Your task to perform on an android device: install app "Facebook" Image 0: 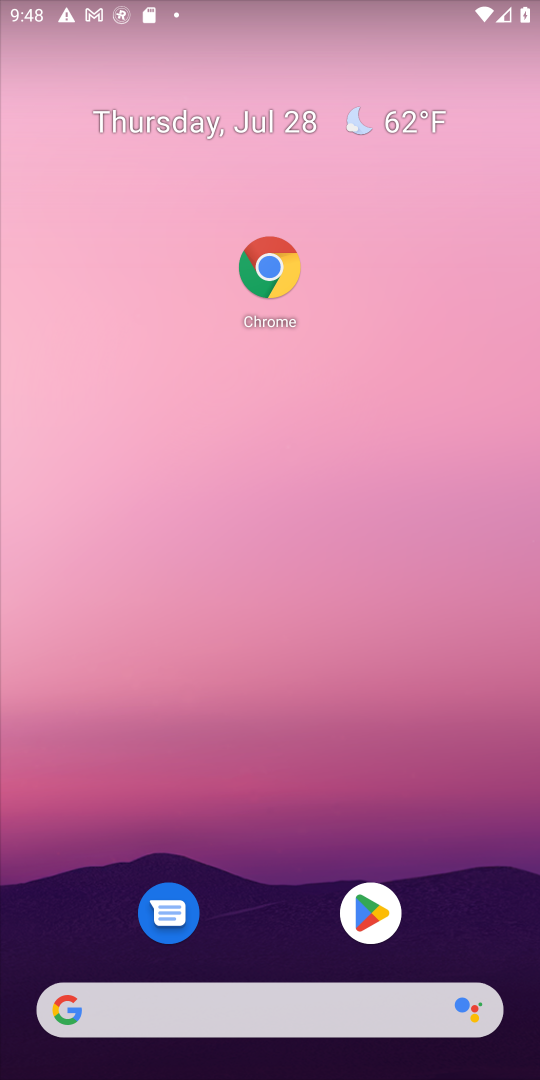
Step 0: click (376, 914)
Your task to perform on an android device: install app "Facebook" Image 1: 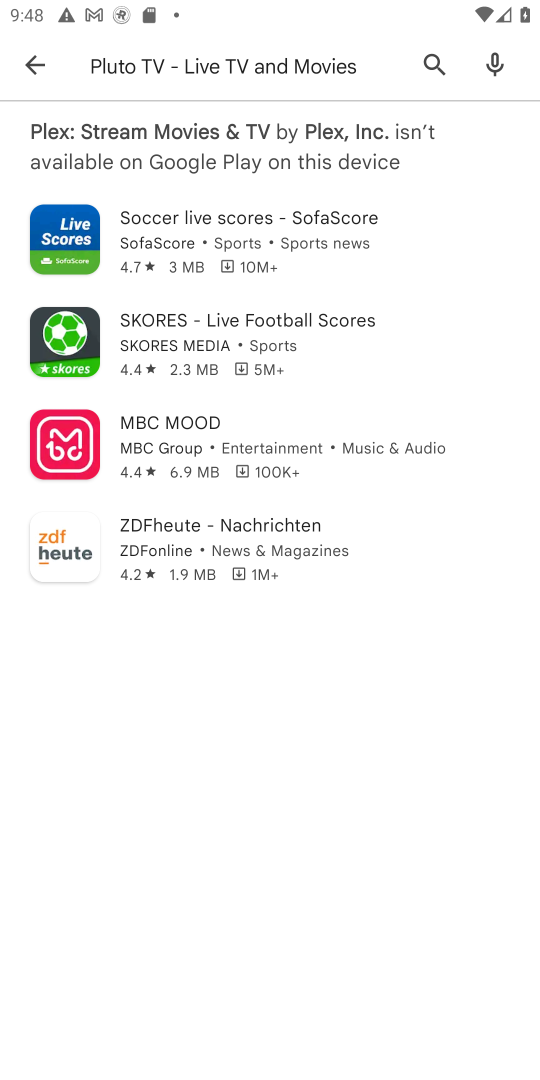
Step 1: click (429, 67)
Your task to perform on an android device: install app "Facebook" Image 2: 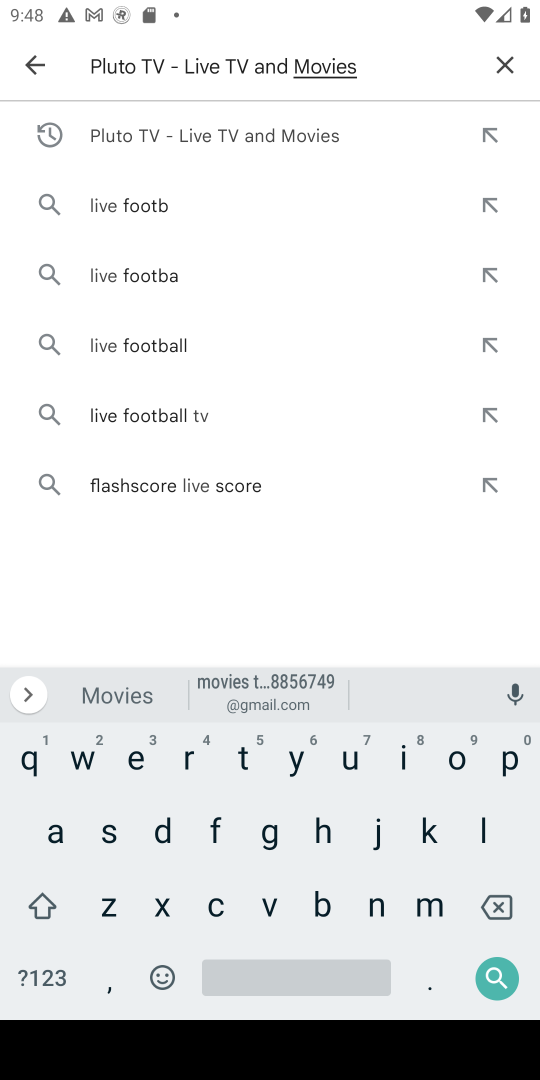
Step 2: click (511, 65)
Your task to perform on an android device: install app "Facebook" Image 3: 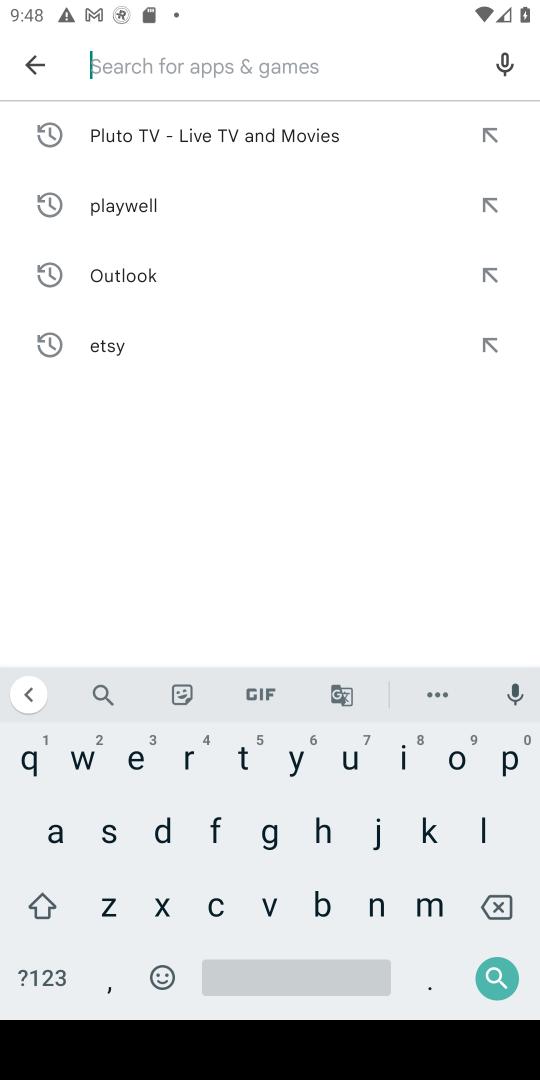
Step 3: click (204, 831)
Your task to perform on an android device: install app "Facebook" Image 4: 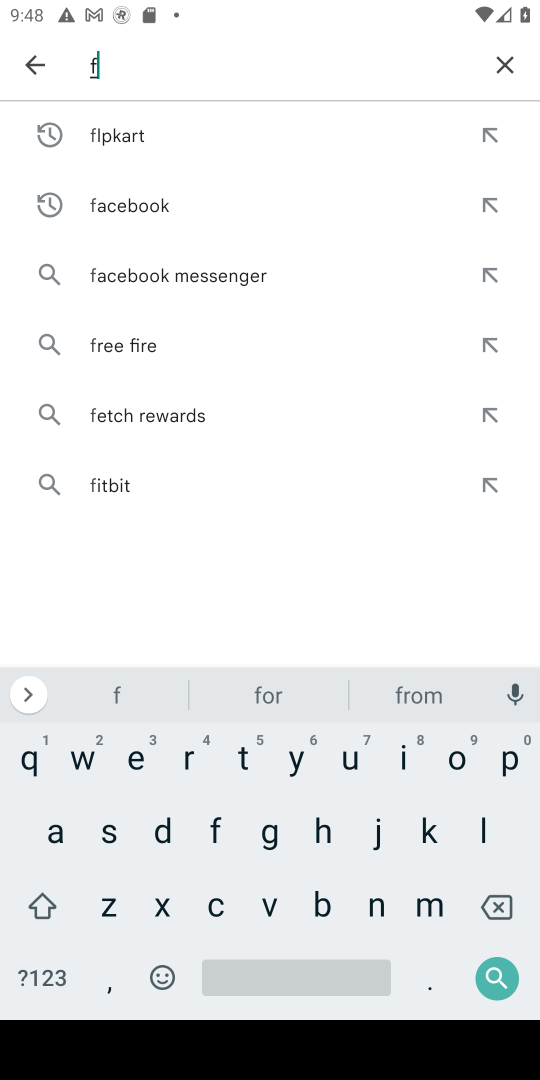
Step 4: click (49, 826)
Your task to perform on an android device: install app "Facebook" Image 5: 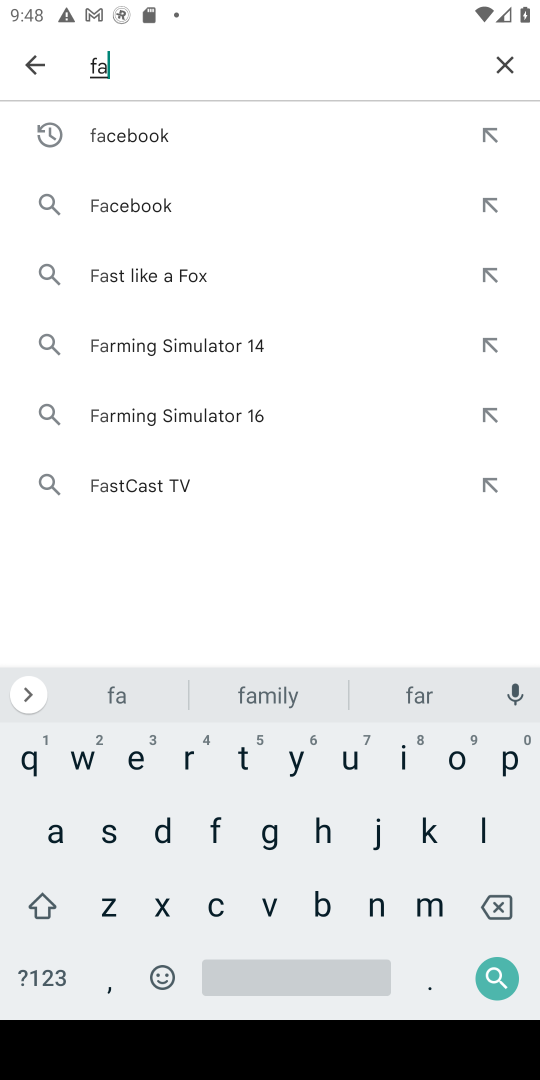
Step 5: click (165, 138)
Your task to perform on an android device: install app "Facebook" Image 6: 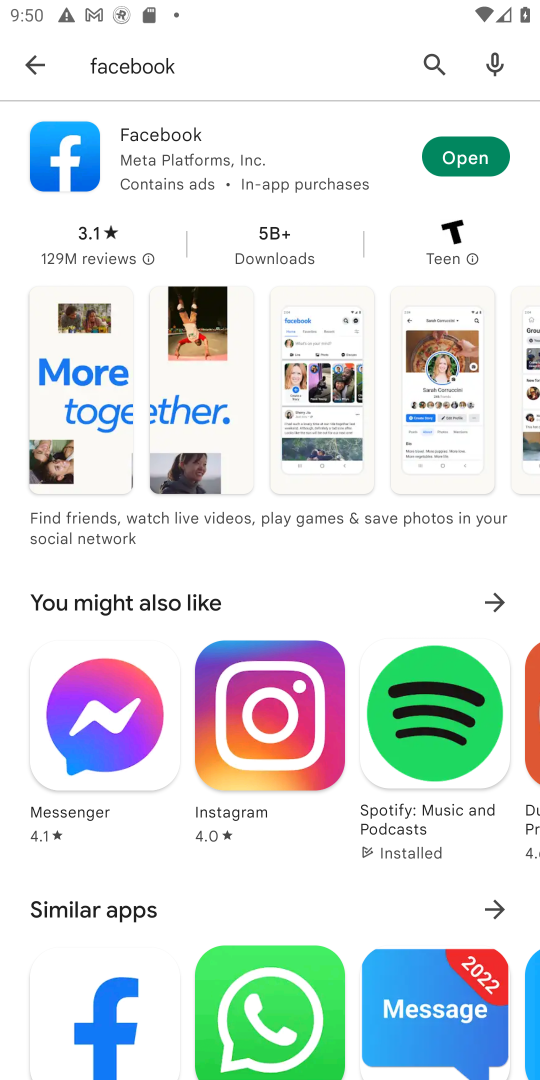
Step 6: task complete